Your task to perform on an android device: turn off priority inbox in the gmail app Image 0: 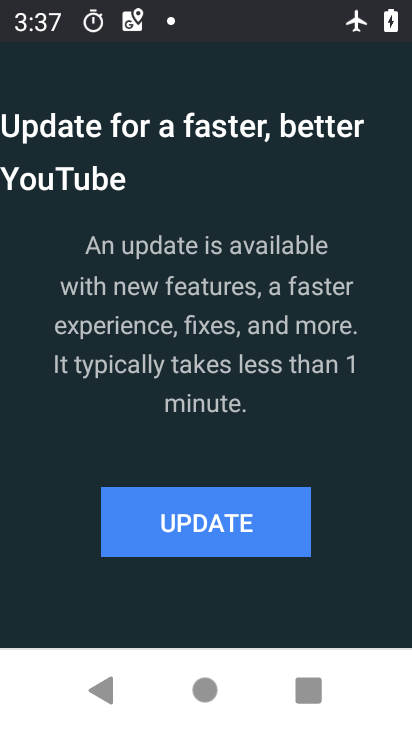
Step 0: press home button
Your task to perform on an android device: turn off priority inbox in the gmail app Image 1: 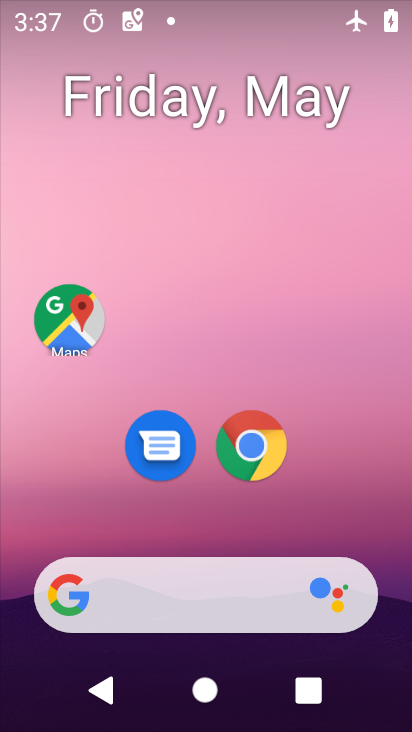
Step 1: drag from (190, 591) to (259, 161)
Your task to perform on an android device: turn off priority inbox in the gmail app Image 2: 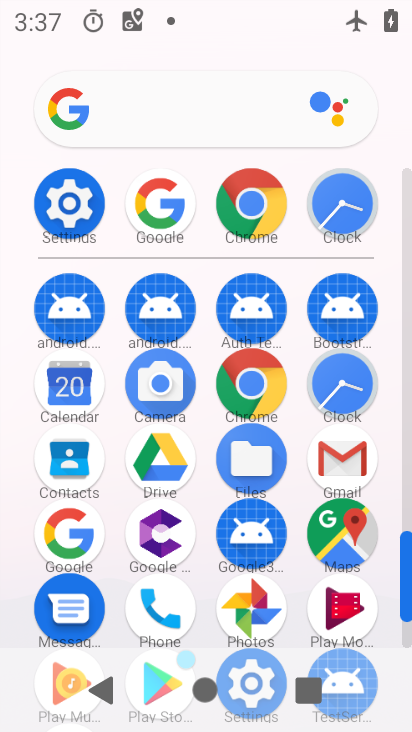
Step 2: click (342, 459)
Your task to perform on an android device: turn off priority inbox in the gmail app Image 3: 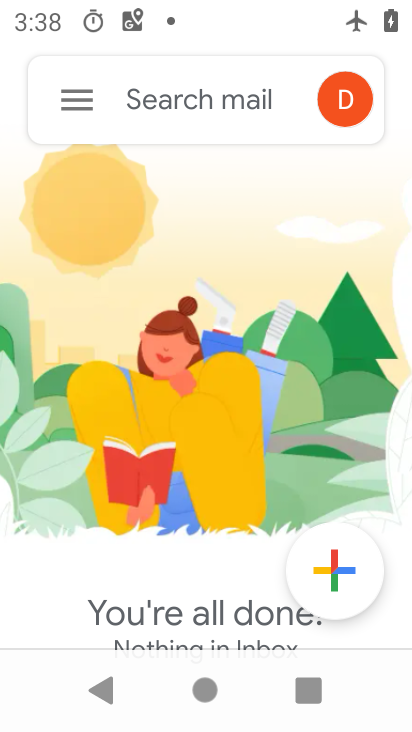
Step 3: click (79, 110)
Your task to perform on an android device: turn off priority inbox in the gmail app Image 4: 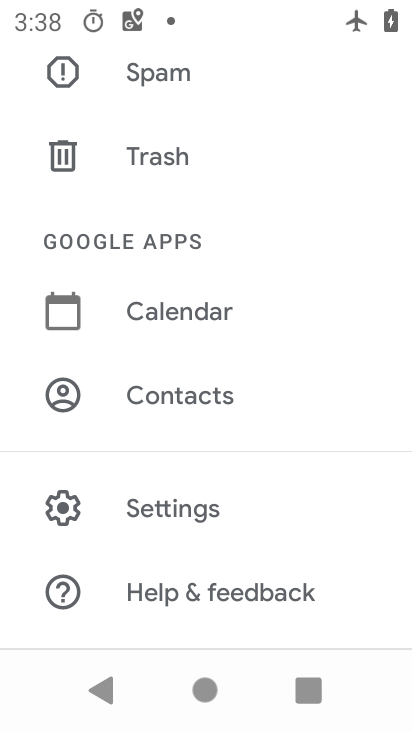
Step 4: click (143, 522)
Your task to perform on an android device: turn off priority inbox in the gmail app Image 5: 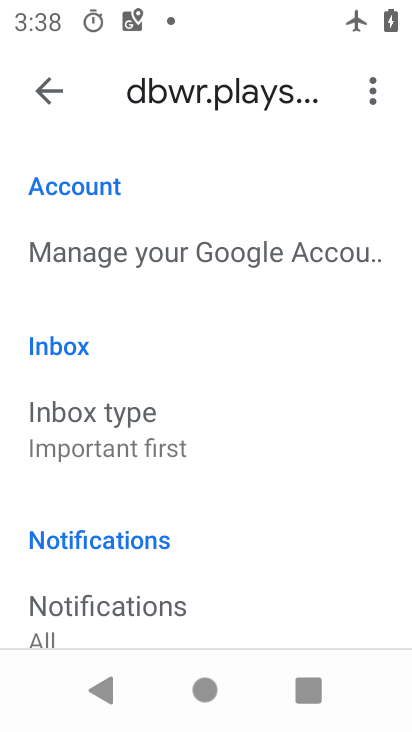
Step 5: drag from (148, 539) to (241, 174)
Your task to perform on an android device: turn off priority inbox in the gmail app Image 6: 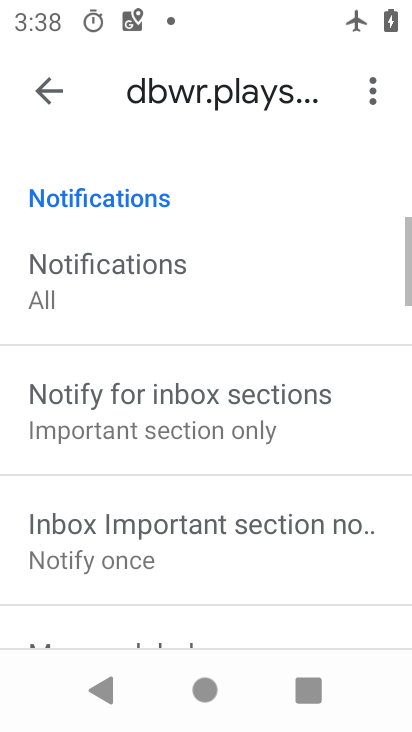
Step 6: click (243, 168)
Your task to perform on an android device: turn off priority inbox in the gmail app Image 7: 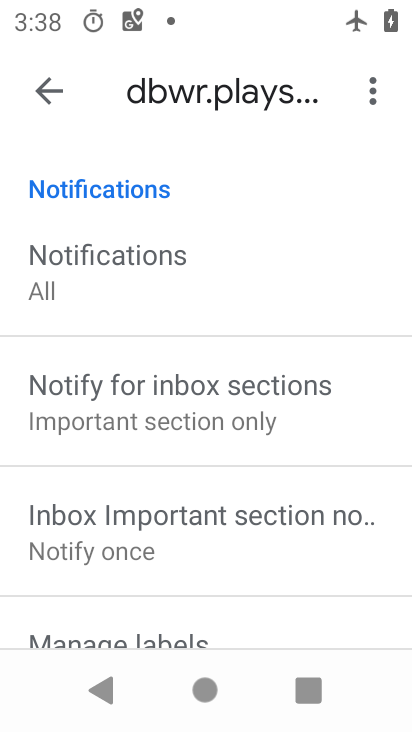
Step 7: task complete